Your task to perform on an android device: find which apps use the phone's location Image 0: 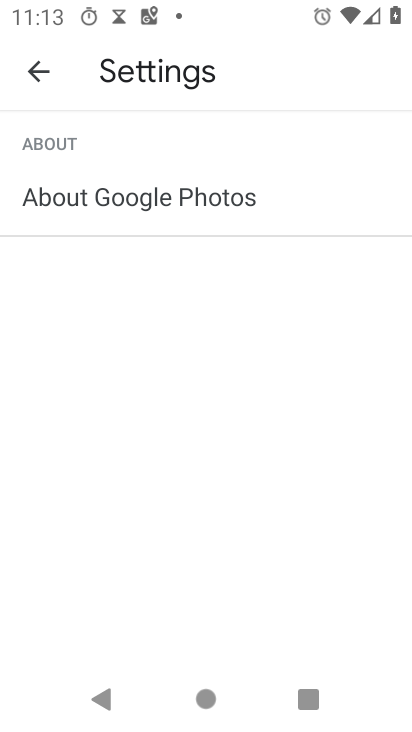
Step 0: press home button
Your task to perform on an android device: find which apps use the phone's location Image 1: 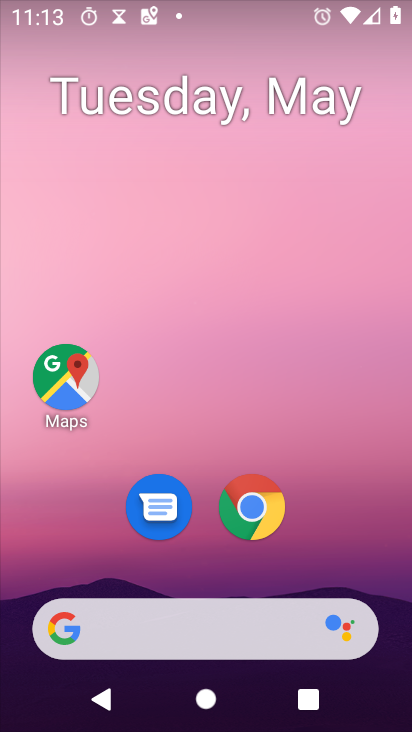
Step 1: drag from (24, 598) to (317, 177)
Your task to perform on an android device: find which apps use the phone's location Image 2: 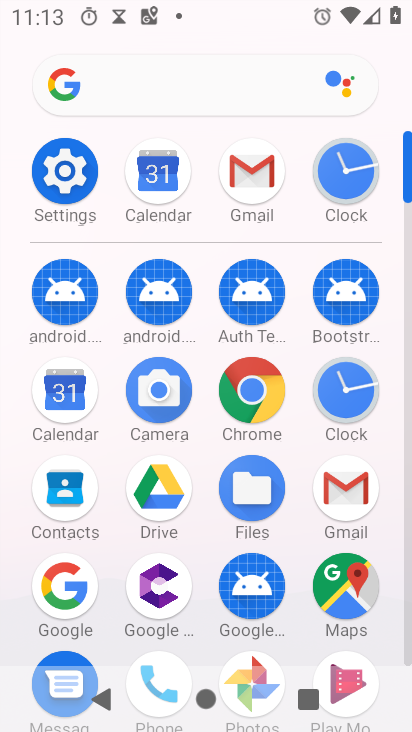
Step 2: click (68, 181)
Your task to perform on an android device: find which apps use the phone's location Image 3: 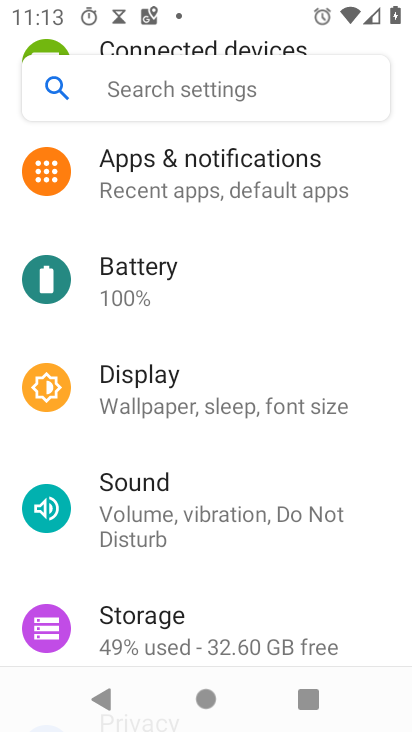
Step 3: drag from (205, 124) to (112, 698)
Your task to perform on an android device: find which apps use the phone's location Image 4: 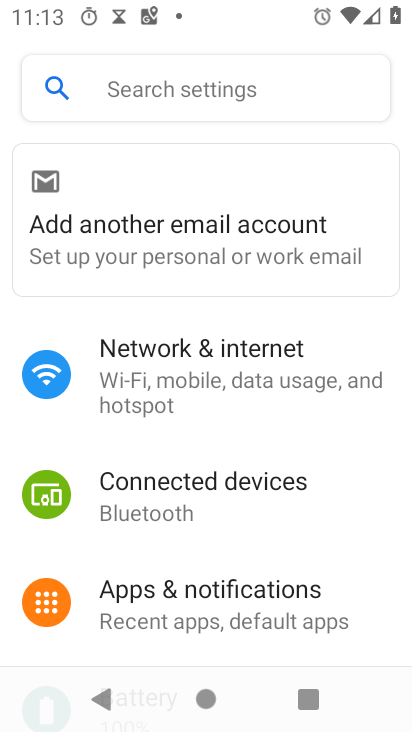
Step 4: drag from (55, 424) to (219, 68)
Your task to perform on an android device: find which apps use the phone's location Image 5: 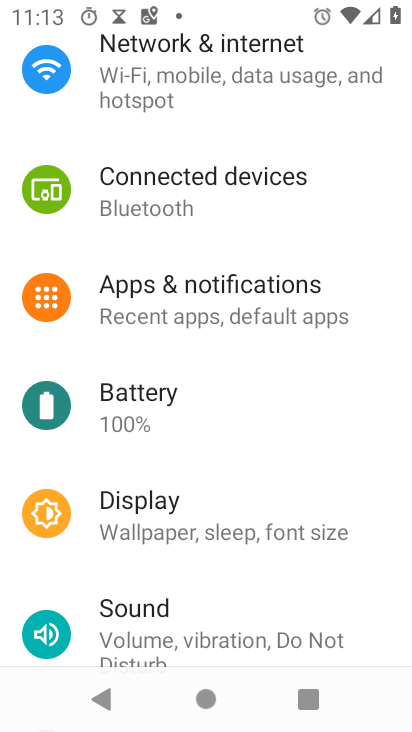
Step 5: drag from (3, 317) to (231, 105)
Your task to perform on an android device: find which apps use the phone's location Image 6: 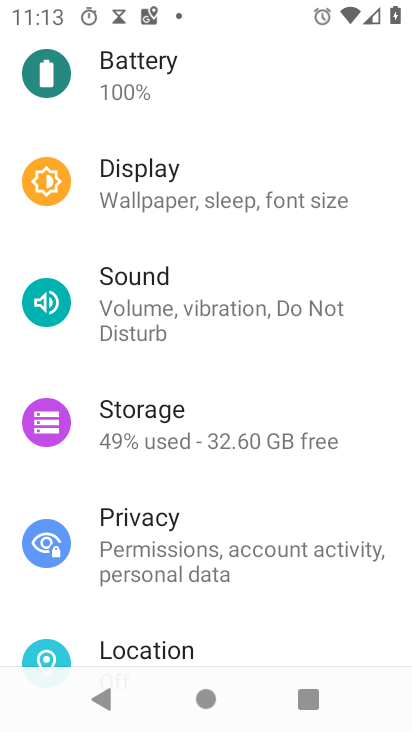
Step 6: click (86, 648)
Your task to perform on an android device: find which apps use the phone's location Image 7: 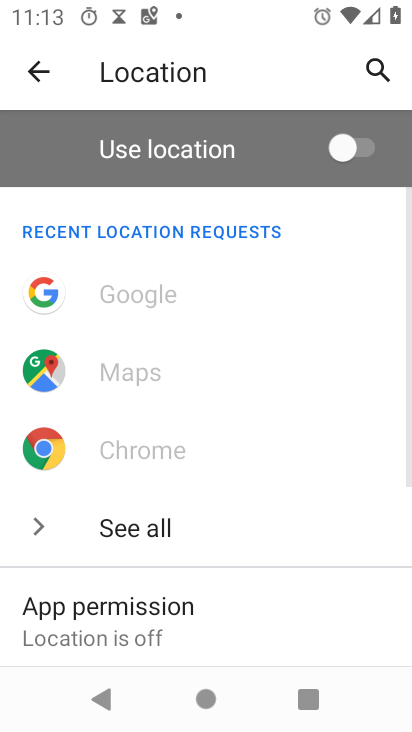
Step 7: click (87, 629)
Your task to perform on an android device: find which apps use the phone's location Image 8: 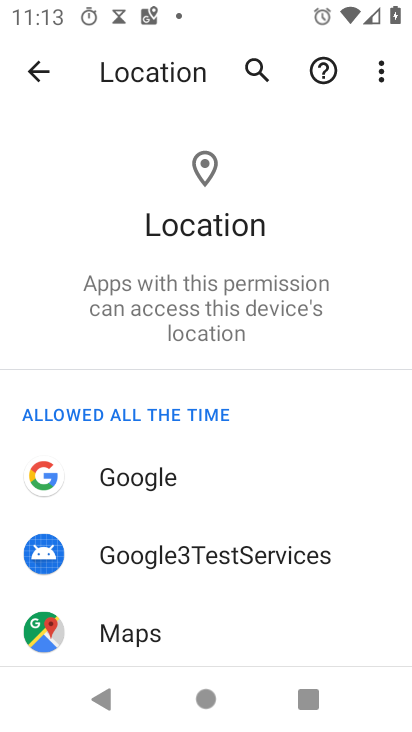
Step 8: task complete